Your task to perform on an android device: toggle location history Image 0: 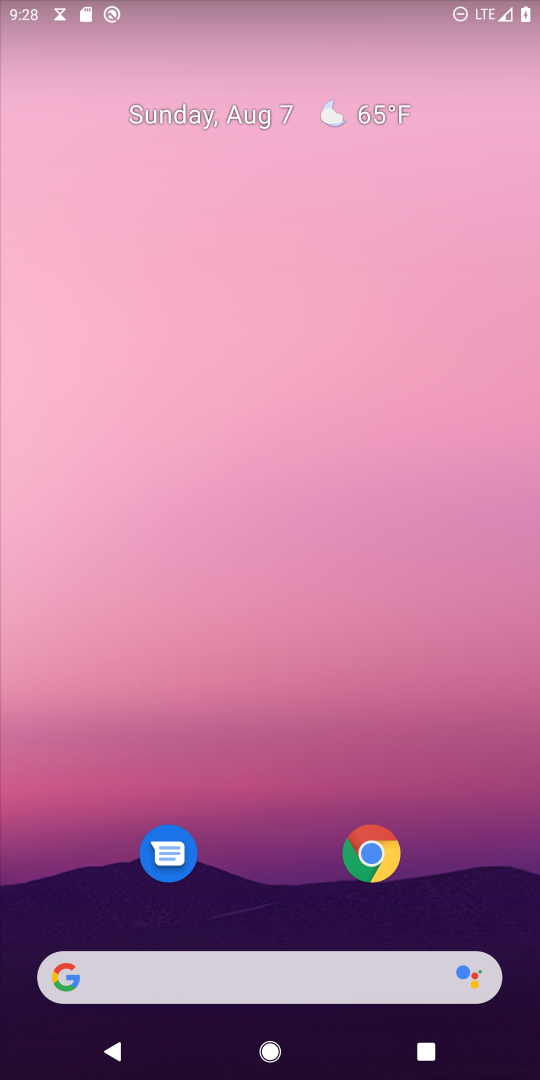
Step 0: drag from (208, 918) to (219, 148)
Your task to perform on an android device: toggle location history Image 1: 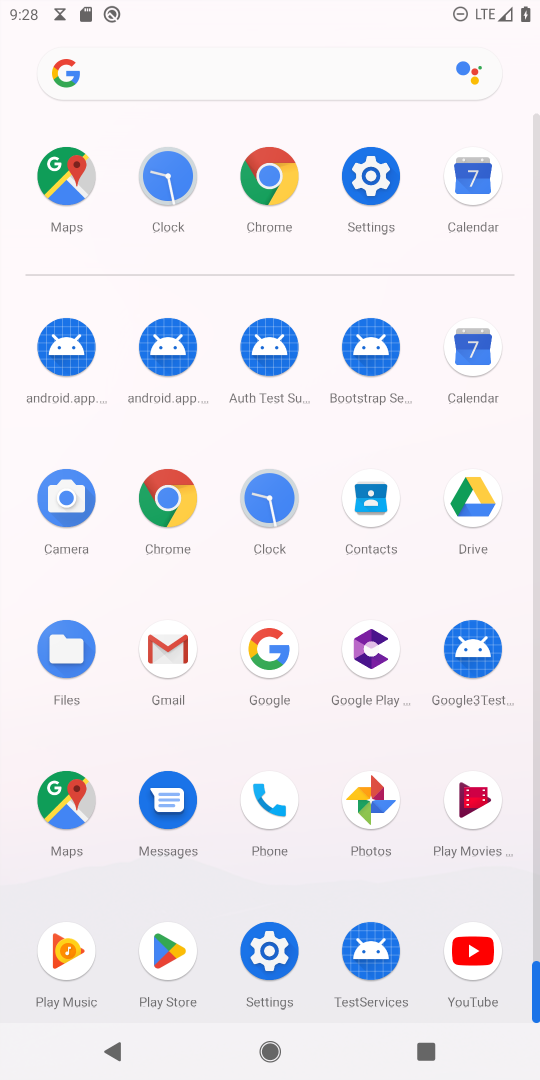
Step 1: click (380, 153)
Your task to perform on an android device: toggle location history Image 2: 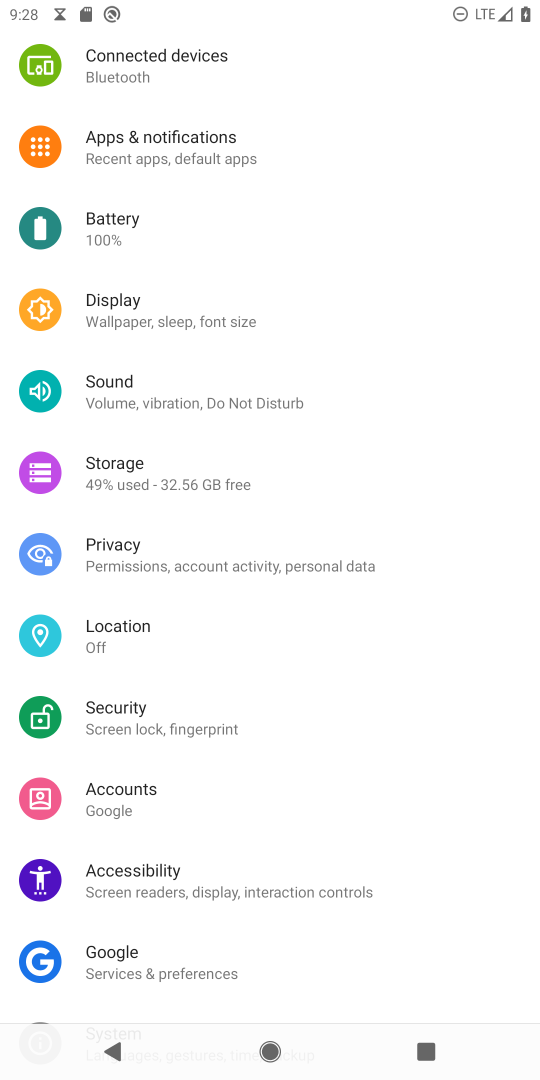
Step 2: click (154, 610)
Your task to perform on an android device: toggle location history Image 3: 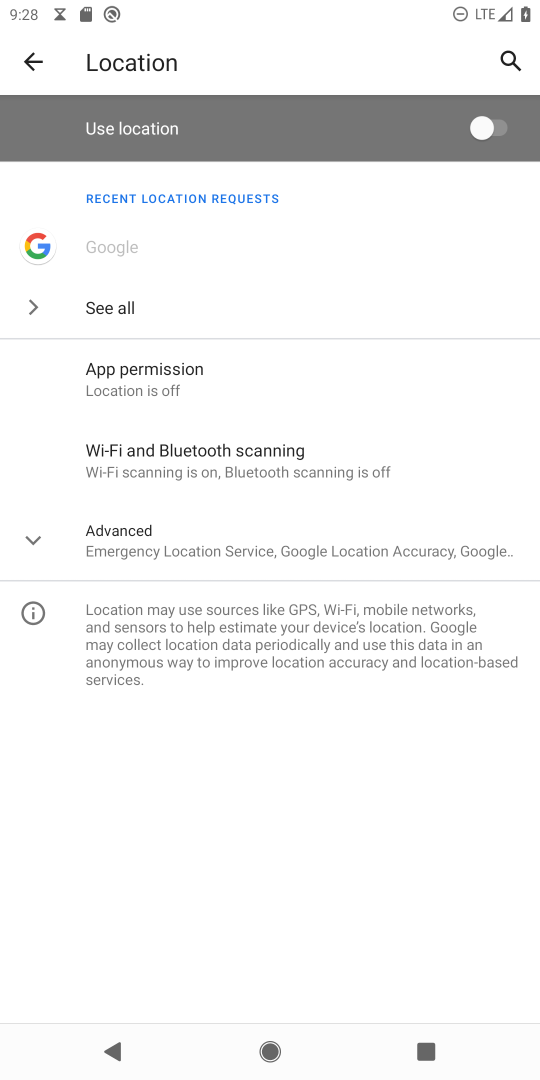
Step 3: click (209, 550)
Your task to perform on an android device: toggle location history Image 4: 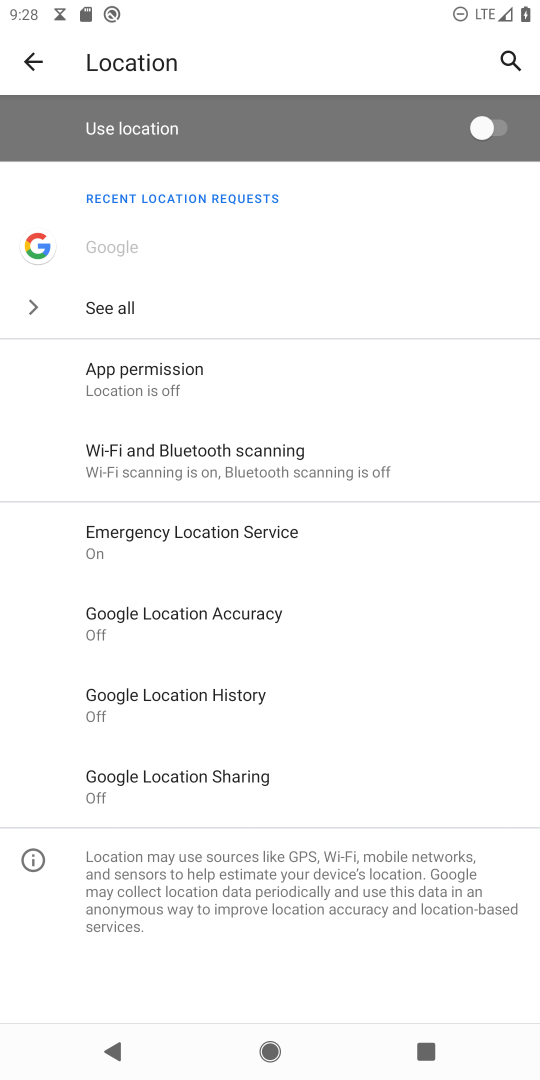
Step 4: click (243, 685)
Your task to perform on an android device: toggle location history Image 5: 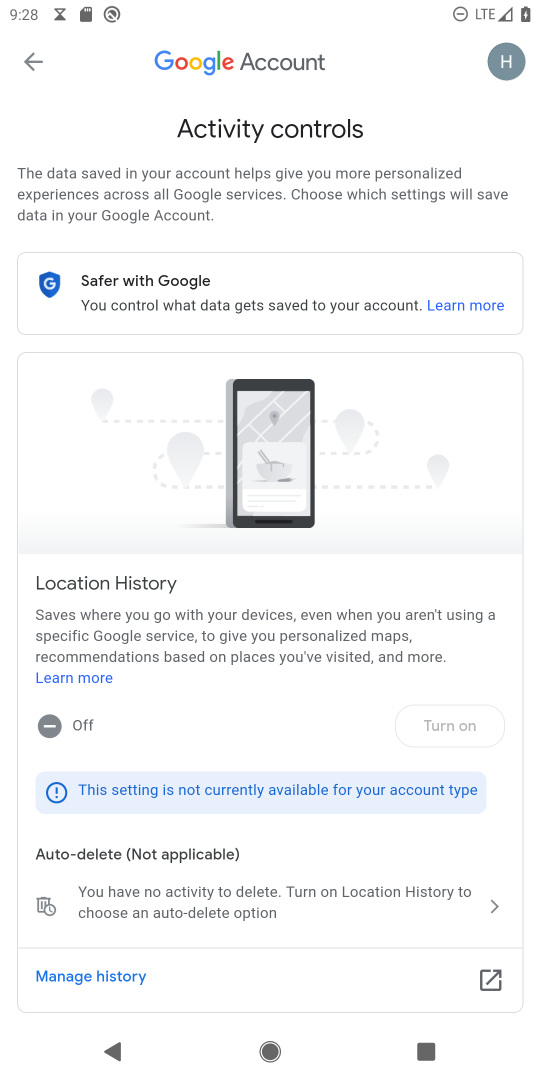
Step 5: click (55, 714)
Your task to perform on an android device: toggle location history Image 6: 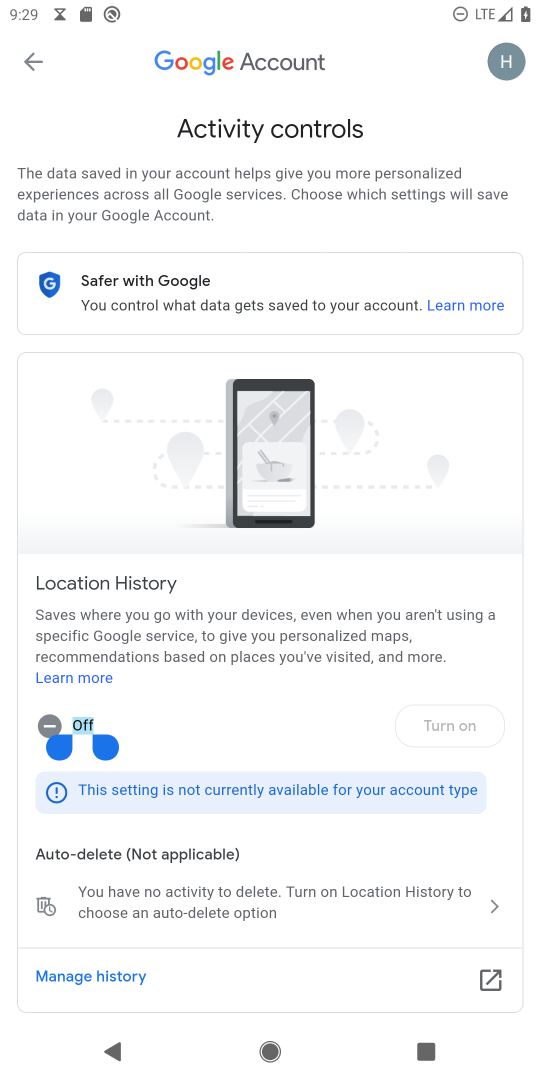
Step 6: click (175, 728)
Your task to perform on an android device: toggle location history Image 7: 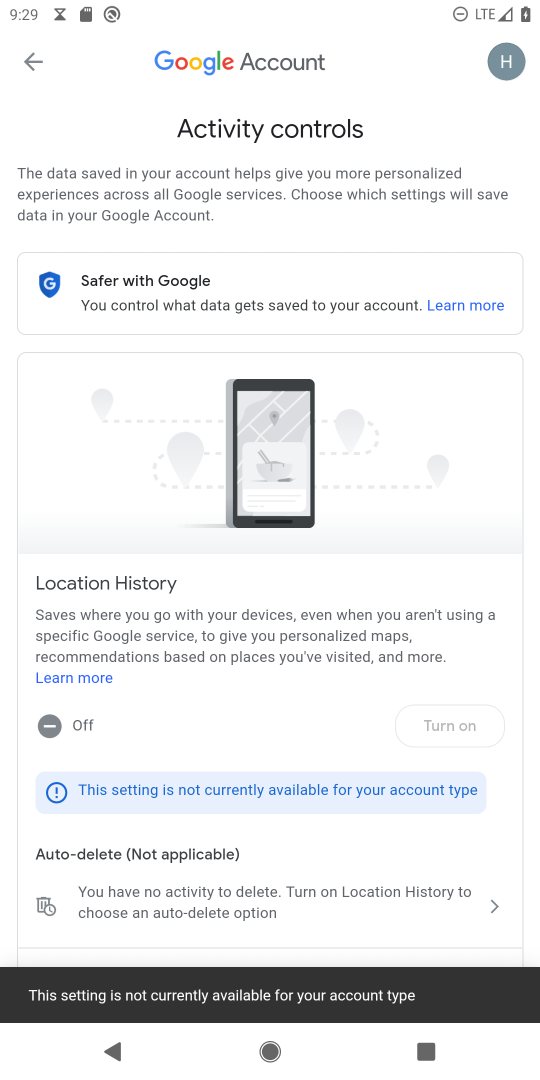
Step 7: click (78, 716)
Your task to perform on an android device: toggle location history Image 8: 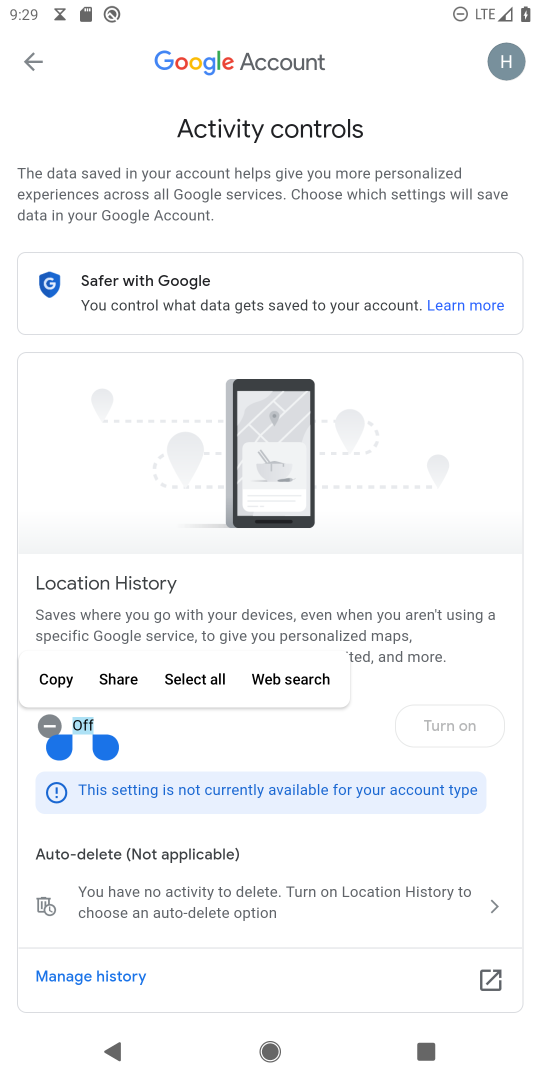
Step 8: task complete